Your task to perform on an android device: Add "usb-c to usb-a" to the cart on newegg.com, then select checkout. Image 0: 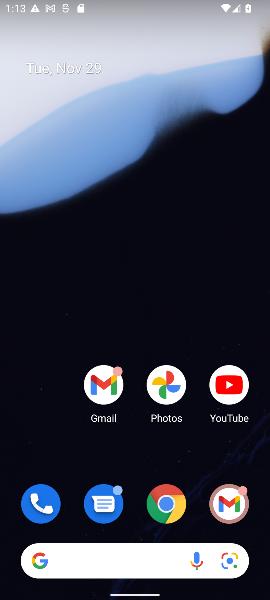
Step 0: click (157, 503)
Your task to perform on an android device: Add "usb-c to usb-a" to the cart on newegg.com, then select checkout. Image 1: 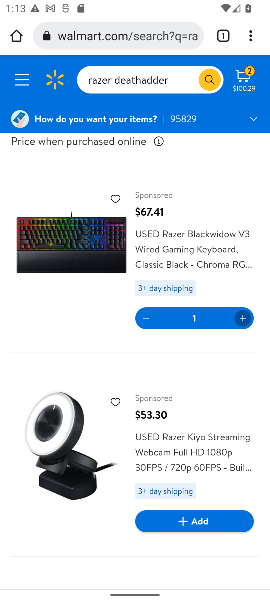
Step 1: click (107, 42)
Your task to perform on an android device: Add "usb-c to usb-a" to the cart on newegg.com, then select checkout. Image 2: 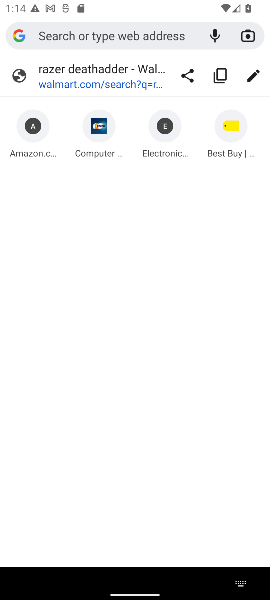
Step 2: click (97, 131)
Your task to perform on an android device: Add "usb-c to usb-a" to the cart on newegg.com, then select checkout. Image 3: 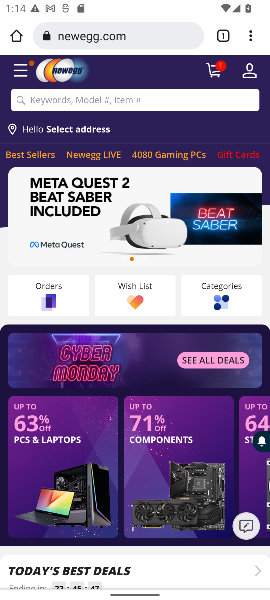
Step 3: click (77, 101)
Your task to perform on an android device: Add "usb-c to usb-a" to the cart on newegg.com, then select checkout. Image 4: 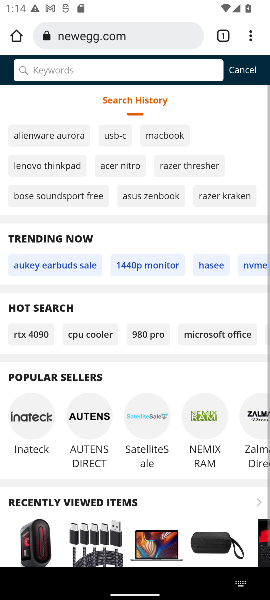
Step 4: type "usb-c to usb-a"
Your task to perform on an android device: Add "usb-c to usb-a" to the cart on newegg.com, then select checkout. Image 5: 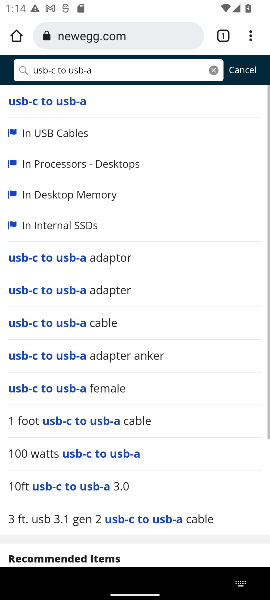
Step 5: click (48, 106)
Your task to perform on an android device: Add "usb-c to usb-a" to the cart on newegg.com, then select checkout. Image 6: 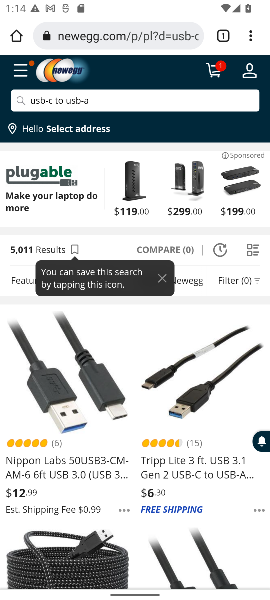
Step 6: drag from (63, 478) to (78, 334)
Your task to perform on an android device: Add "usb-c to usb-a" to the cart on newegg.com, then select checkout. Image 7: 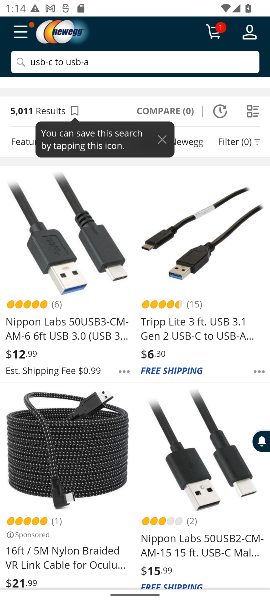
Step 7: click (199, 275)
Your task to perform on an android device: Add "usb-c to usb-a" to the cart on newegg.com, then select checkout. Image 8: 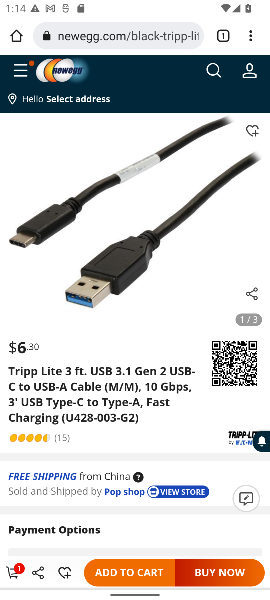
Step 8: click (127, 573)
Your task to perform on an android device: Add "usb-c to usb-a" to the cart on newegg.com, then select checkout. Image 9: 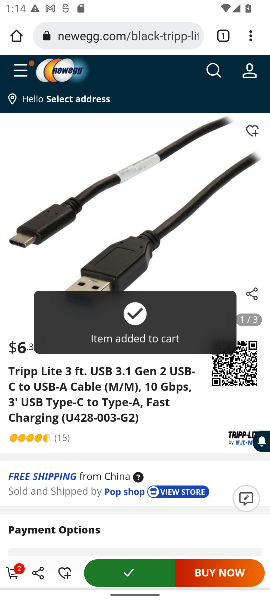
Step 9: click (13, 576)
Your task to perform on an android device: Add "usb-c to usb-a" to the cart on newegg.com, then select checkout. Image 10: 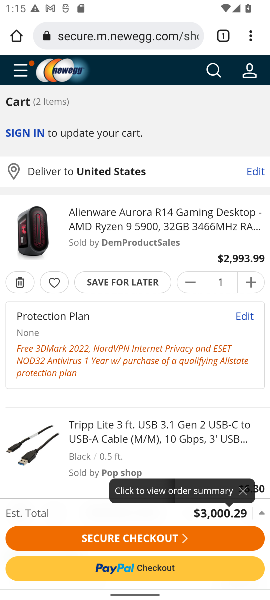
Step 10: click (137, 541)
Your task to perform on an android device: Add "usb-c to usb-a" to the cart on newegg.com, then select checkout. Image 11: 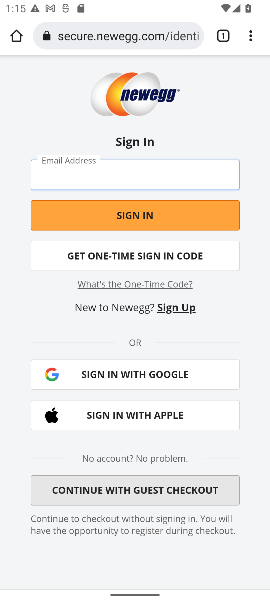
Step 11: task complete